Your task to perform on an android device: show emergency info Image 0: 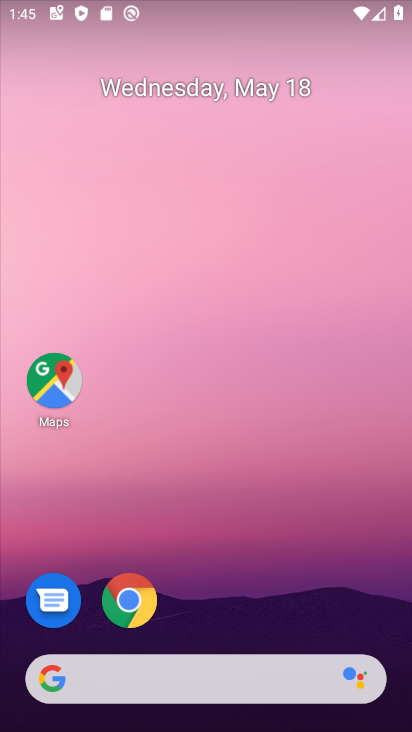
Step 0: drag from (236, 603) to (180, 113)
Your task to perform on an android device: show emergency info Image 1: 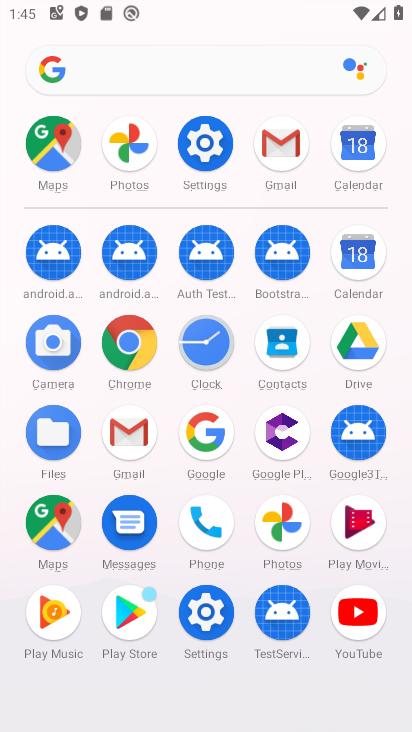
Step 1: click (206, 614)
Your task to perform on an android device: show emergency info Image 2: 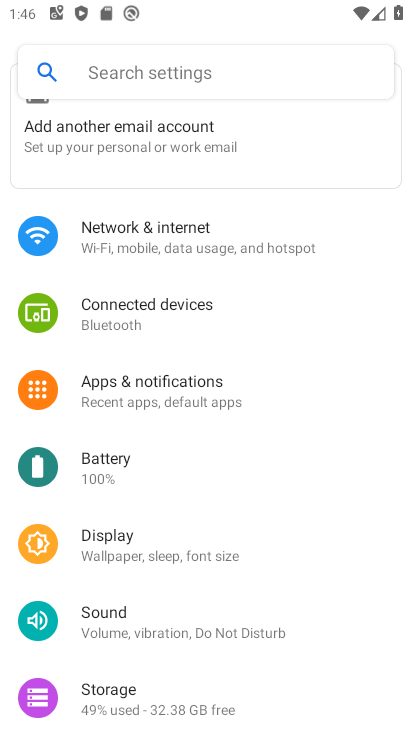
Step 2: drag from (147, 418) to (177, 300)
Your task to perform on an android device: show emergency info Image 3: 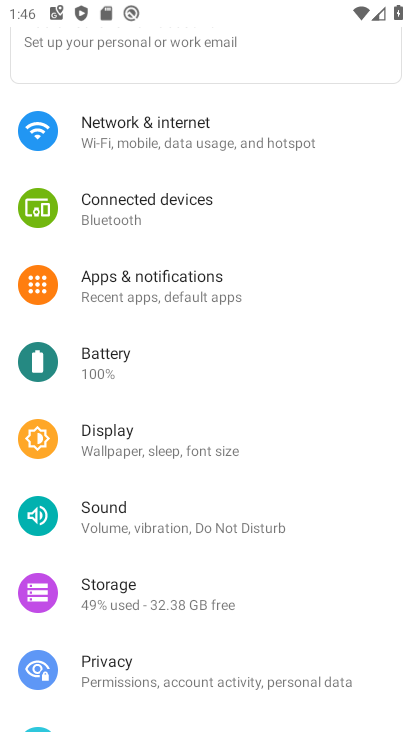
Step 3: drag from (165, 506) to (165, 383)
Your task to perform on an android device: show emergency info Image 4: 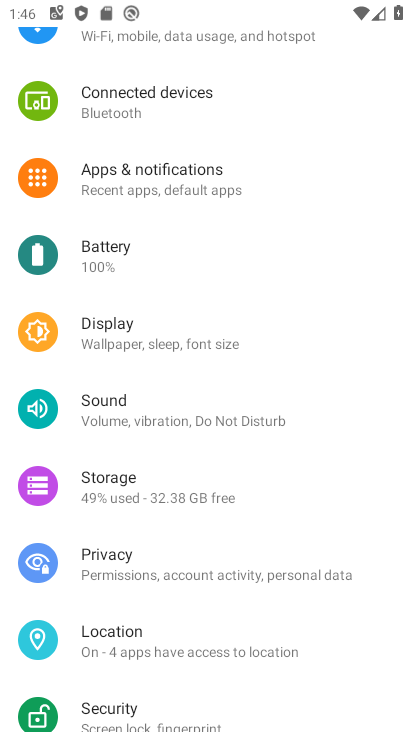
Step 4: drag from (159, 591) to (178, 464)
Your task to perform on an android device: show emergency info Image 5: 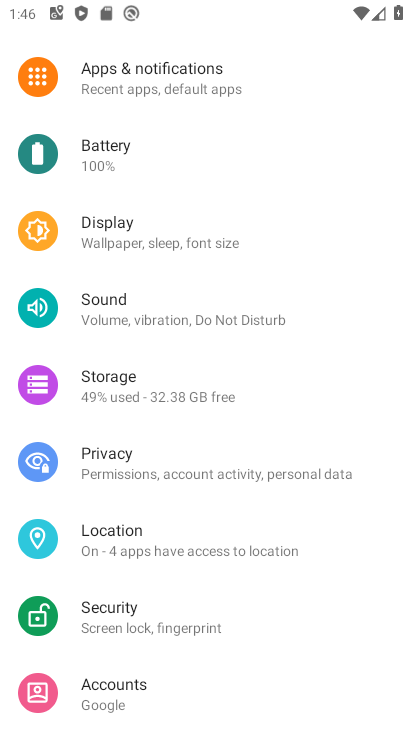
Step 5: drag from (151, 590) to (167, 433)
Your task to perform on an android device: show emergency info Image 6: 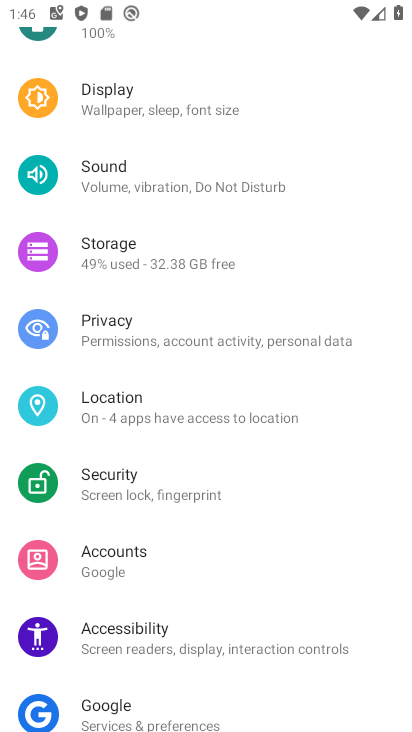
Step 6: drag from (157, 591) to (164, 453)
Your task to perform on an android device: show emergency info Image 7: 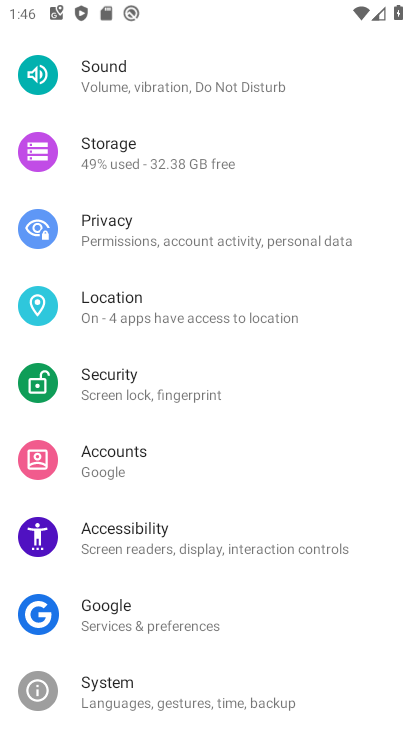
Step 7: drag from (125, 579) to (164, 453)
Your task to perform on an android device: show emergency info Image 8: 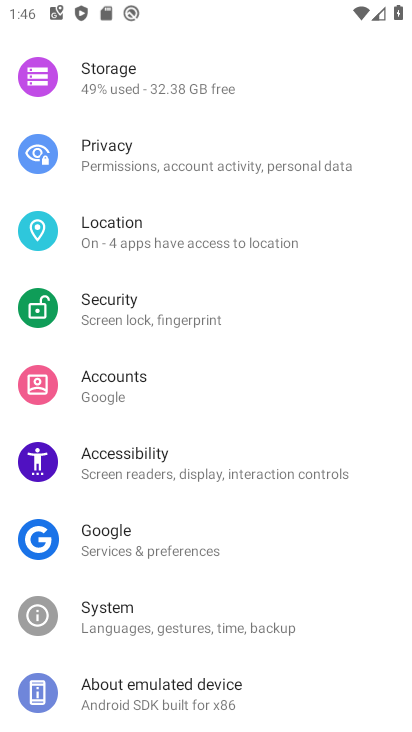
Step 8: click (120, 686)
Your task to perform on an android device: show emergency info Image 9: 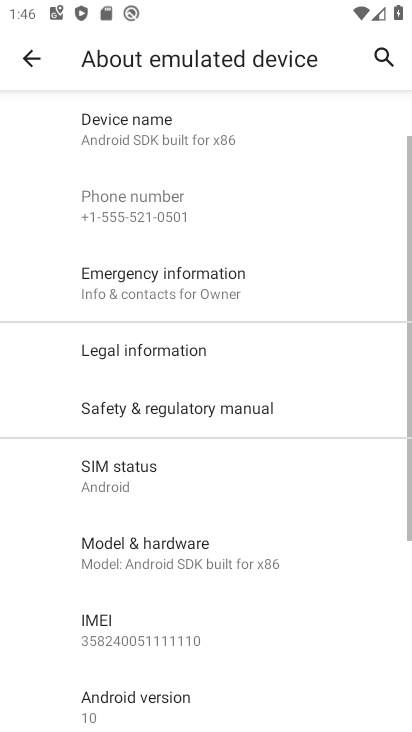
Step 9: click (126, 274)
Your task to perform on an android device: show emergency info Image 10: 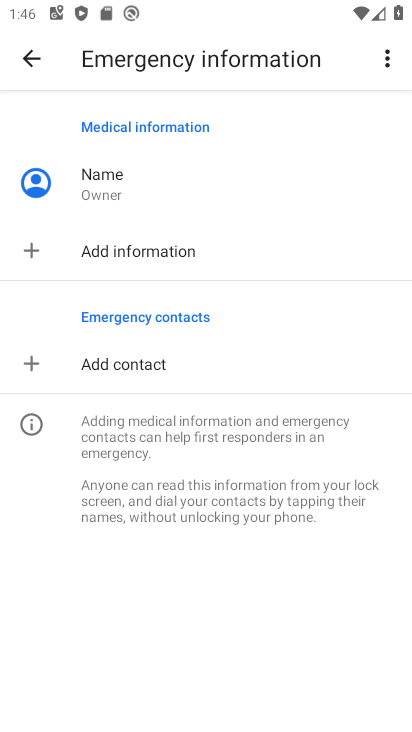
Step 10: task complete